Your task to perform on an android device: change text size in settings app Image 0: 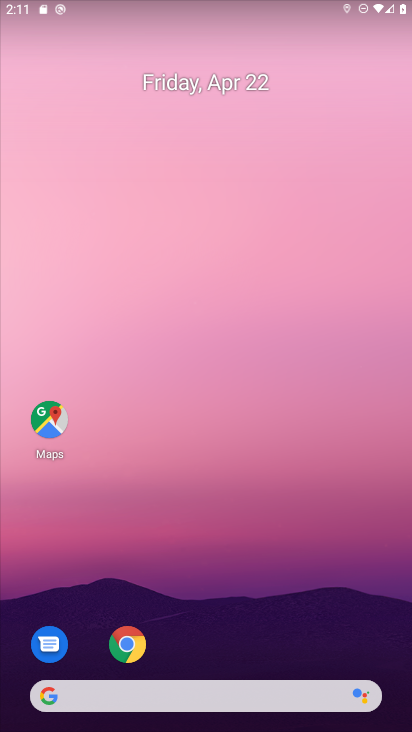
Step 0: drag from (250, 627) to (226, 164)
Your task to perform on an android device: change text size in settings app Image 1: 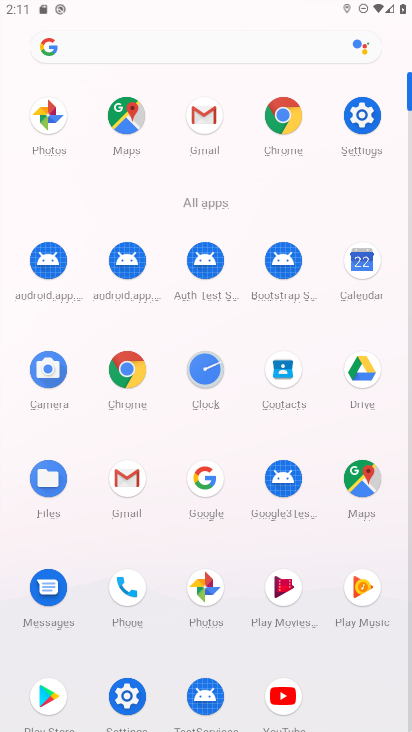
Step 1: click (368, 115)
Your task to perform on an android device: change text size in settings app Image 2: 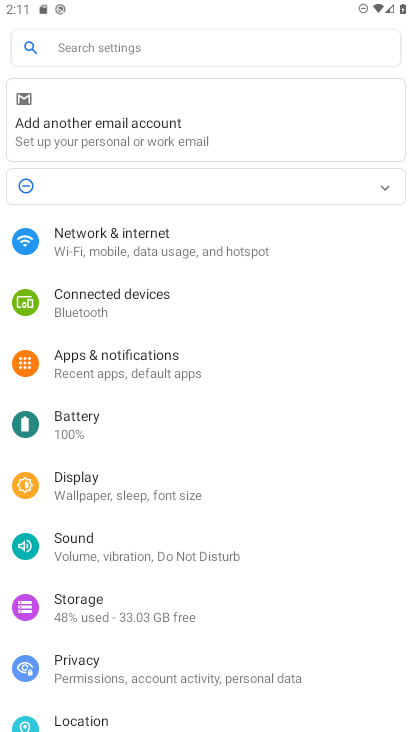
Step 2: drag from (209, 563) to (231, 173)
Your task to perform on an android device: change text size in settings app Image 3: 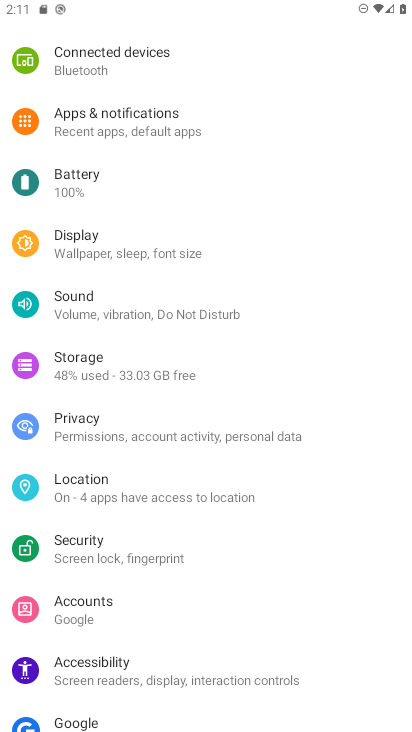
Step 3: drag from (172, 528) to (209, 218)
Your task to perform on an android device: change text size in settings app Image 4: 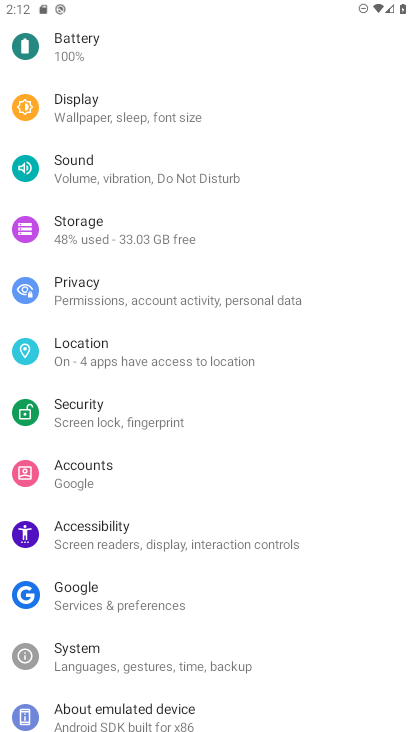
Step 4: click (129, 535)
Your task to perform on an android device: change text size in settings app Image 5: 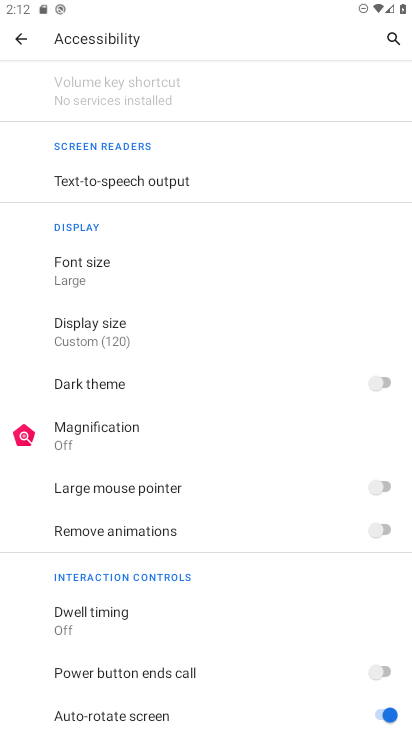
Step 5: click (119, 271)
Your task to perform on an android device: change text size in settings app Image 6: 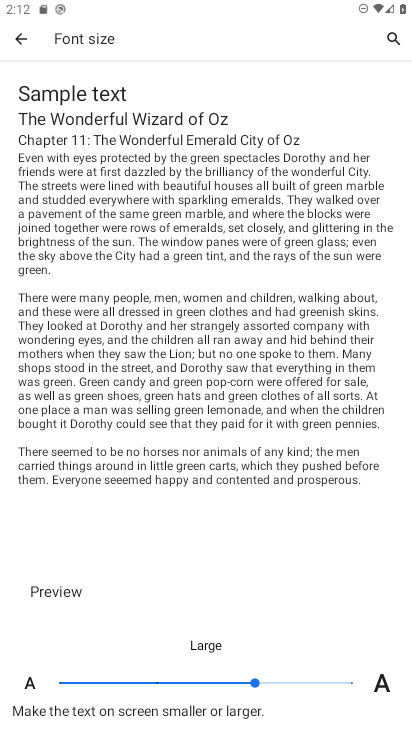
Step 6: click (180, 672)
Your task to perform on an android device: change text size in settings app Image 7: 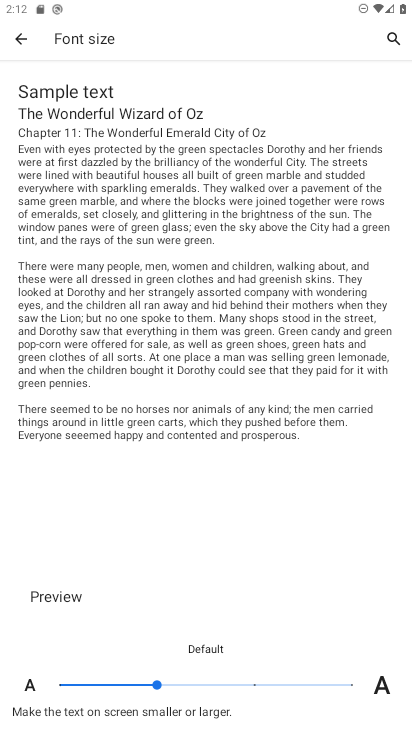
Step 7: task complete